Your task to perform on an android device: Open Google Chrome and click the shortcut for Amazon.com Image 0: 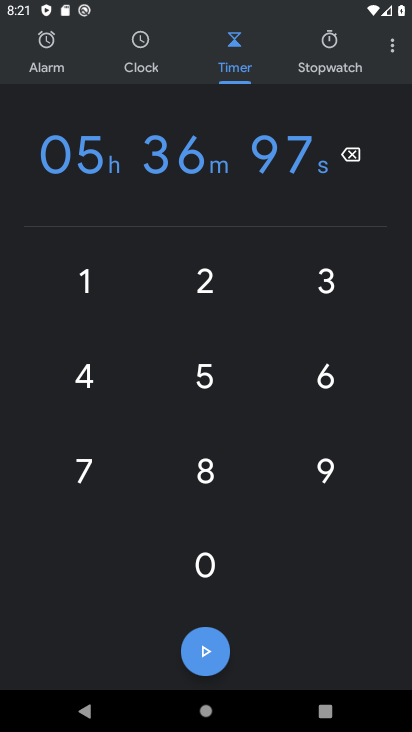
Step 0: press home button
Your task to perform on an android device: Open Google Chrome and click the shortcut for Amazon.com Image 1: 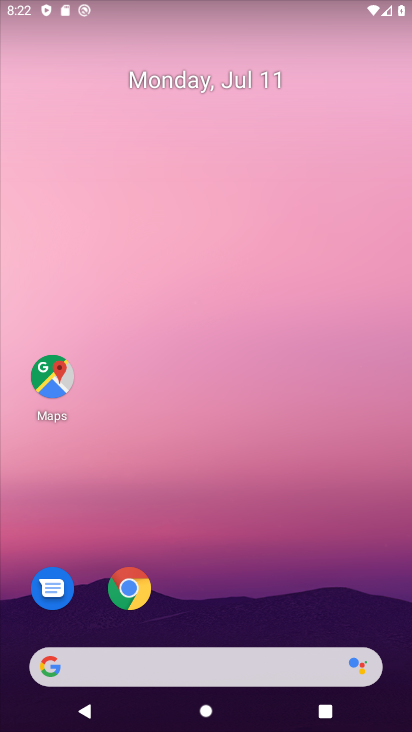
Step 1: click (129, 594)
Your task to perform on an android device: Open Google Chrome and click the shortcut for Amazon.com Image 2: 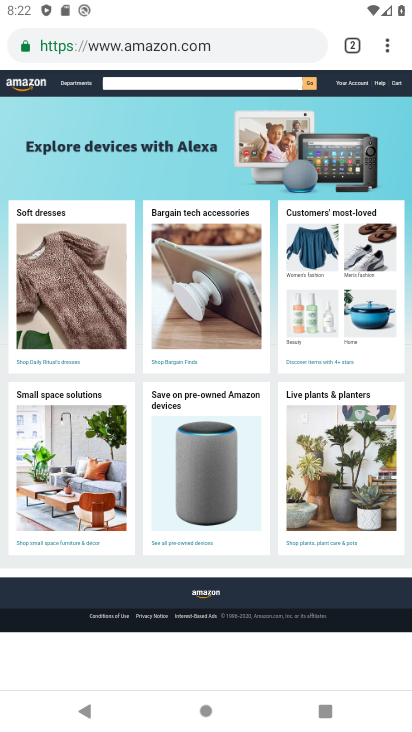
Step 2: click (391, 42)
Your task to perform on an android device: Open Google Chrome and click the shortcut for Amazon.com Image 3: 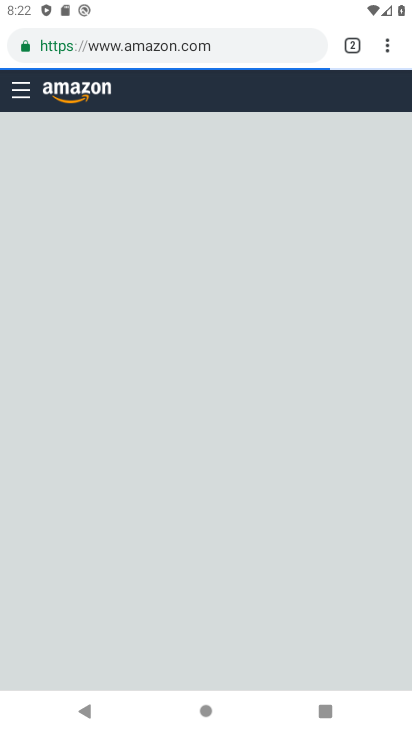
Step 3: click (386, 42)
Your task to perform on an android device: Open Google Chrome and click the shortcut for Amazon.com Image 4: 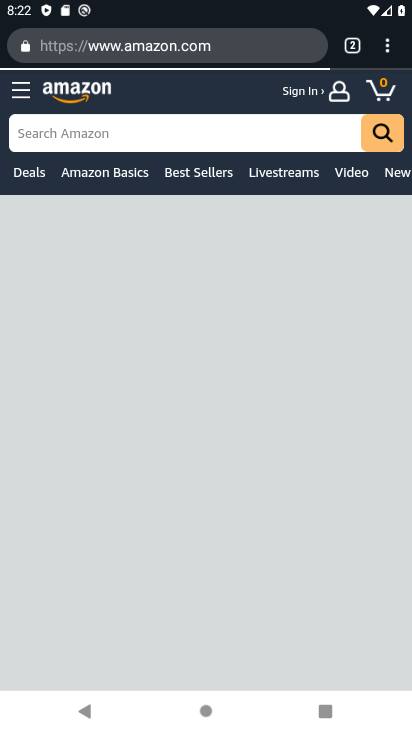
Step 4: click (386, 42)
Your task to perform on an android device: Open Google Chrome and click the shortcut for Amazon.com Image 5: 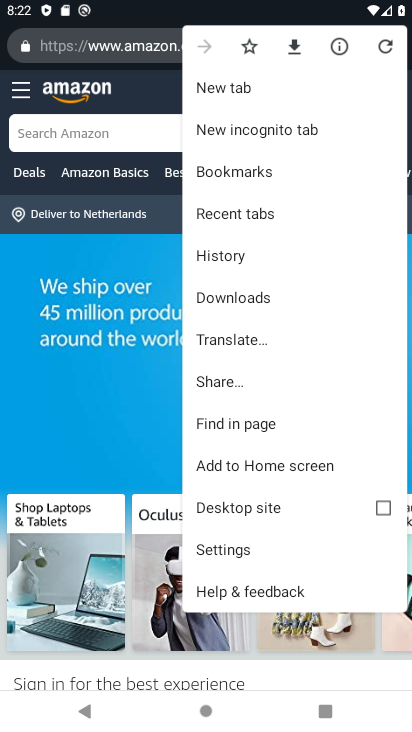
Step 5: click (258, 92)
Your task to perform on an android device: Open Google Chrome and click the shortcut for Amazon.com Image 6: 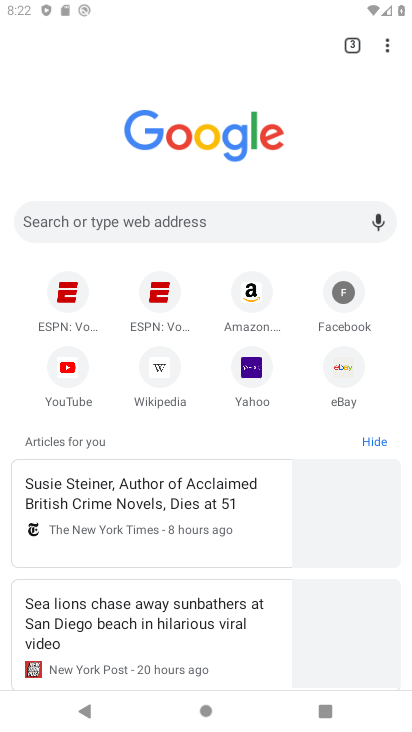
Step 6: click (391, 46)
Your task to perform on an android device: Open Google Chrome and click the shortcut for Amazon.com Image 7: 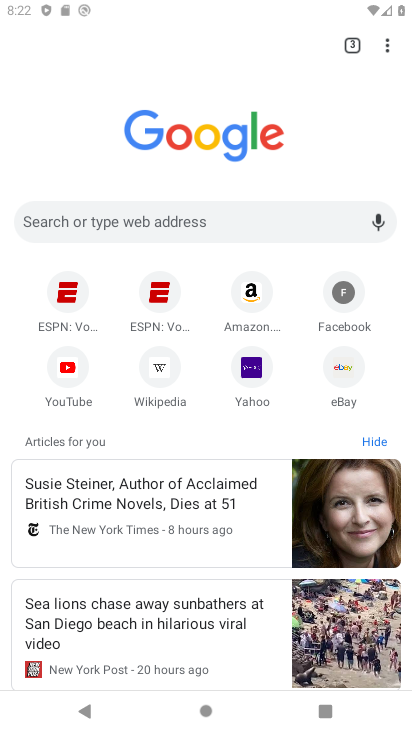
Step 7: click (252, 300)
Your task to perform on an android device: Open Google Chrome and click the shortcut for Amazon.com Image 8: 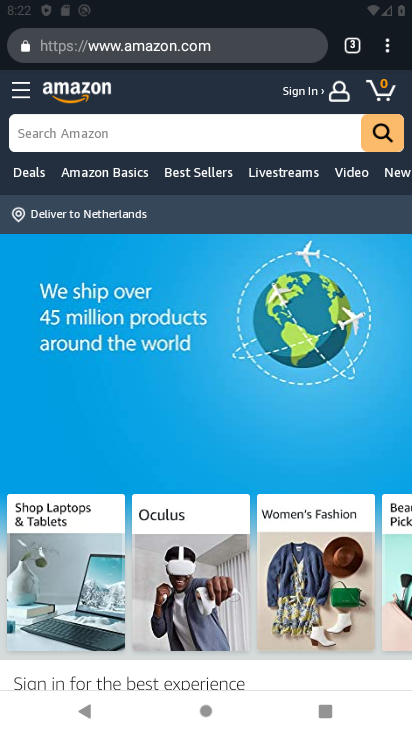
Step 8: task complete